Your task to perform on an android device: toggle pop-ups in chrome Image 0: 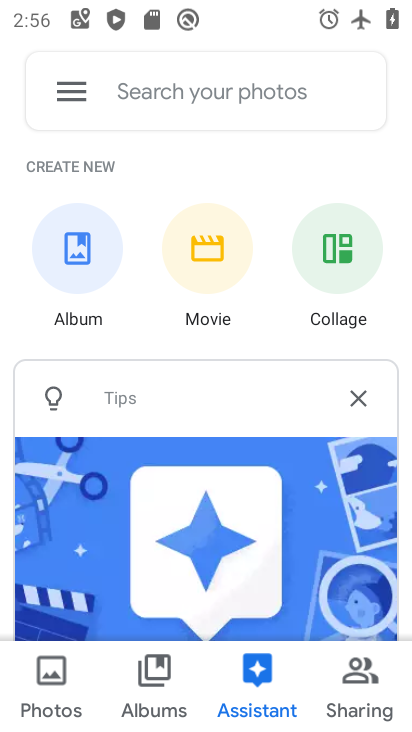
Step 0: press home button
Your task to perform on an android device: toggle pop-ups in chrome Image 1: 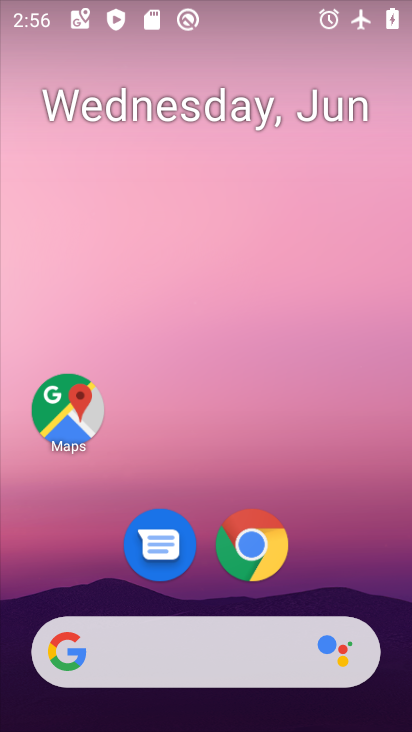
Step 1: click (249, 543)
Your task to perform on an android device: toggle pop-ups in chrome Image 2: 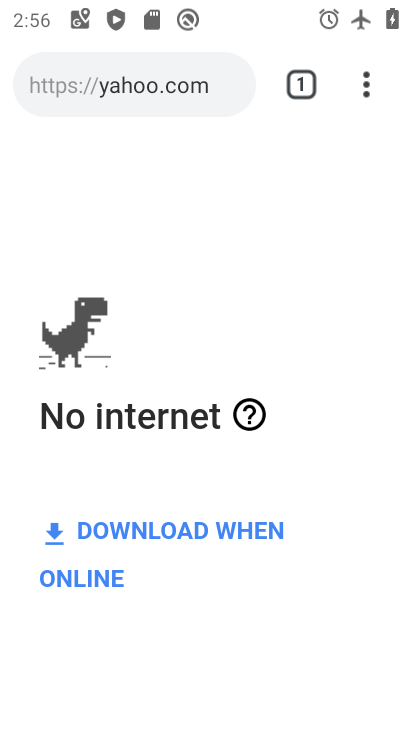
Step 2: drag from (364, 79) to (188, 604)
Your task to perform on an android device: toggle pop-ups in chrome Image 3: 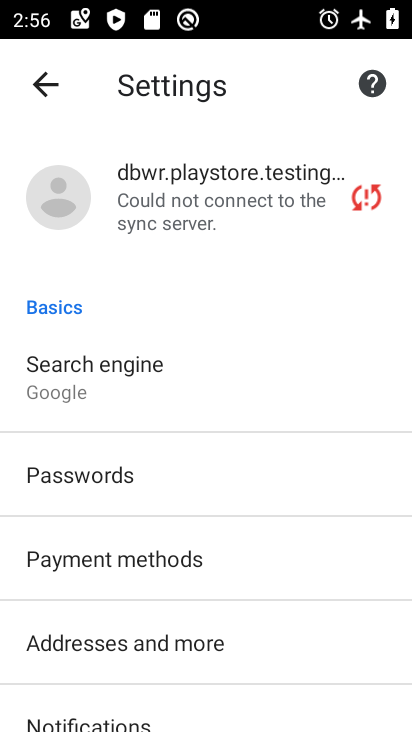
Step 3: drag from (228, 619) to (257, 213)
Your task to perform on an android device: toggle pop-ups in chrome Image 4: 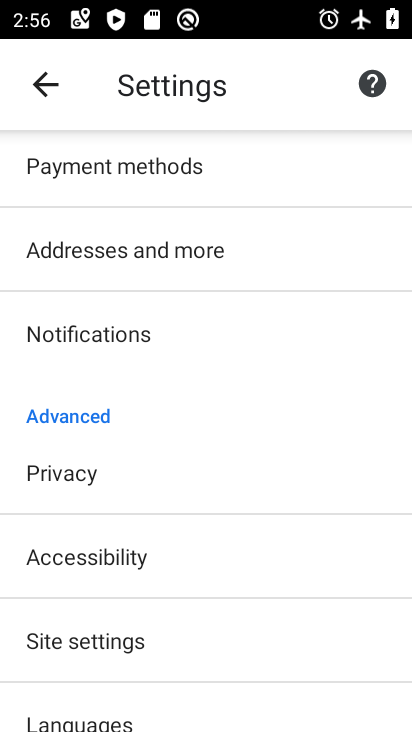
Step 4: click (112, 635)
Your task to perform on an android device: toggle pop-ups in chrome Image 5: 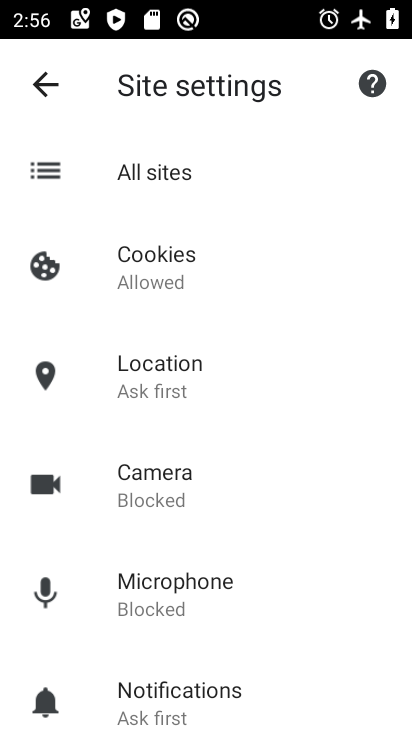
Step 5: drag from (239, 601) to (259, 139)
Your task to perform on an android device: toggle pop-ups in chrome Image 6: 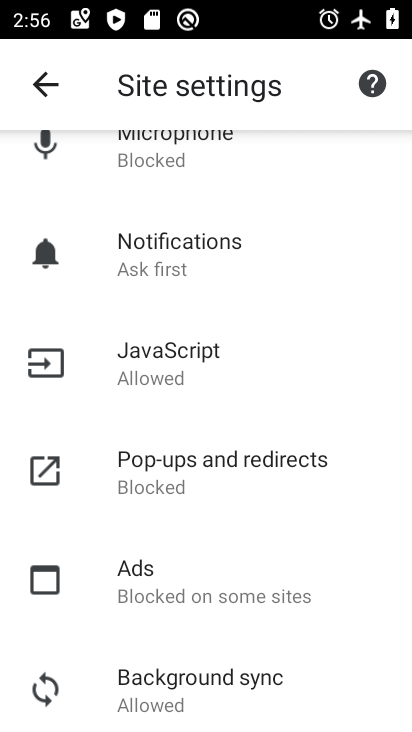
Step 6: click (201, 459)
Your task to perform on an android device: toggle pop-ups in chrome Image 7: 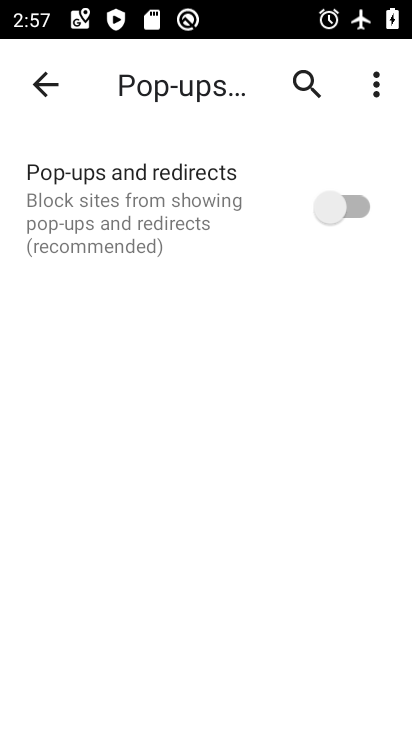
Step 7: click (360, 202)
Your task to perform on an android device: toggle pop-ups in chrome Image 8: 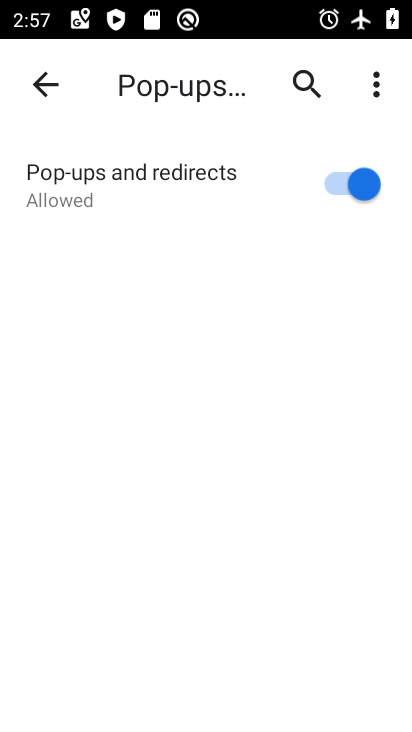
Step 8: task complete